Your task to perform on an android device: Open wifi settings Image 0: 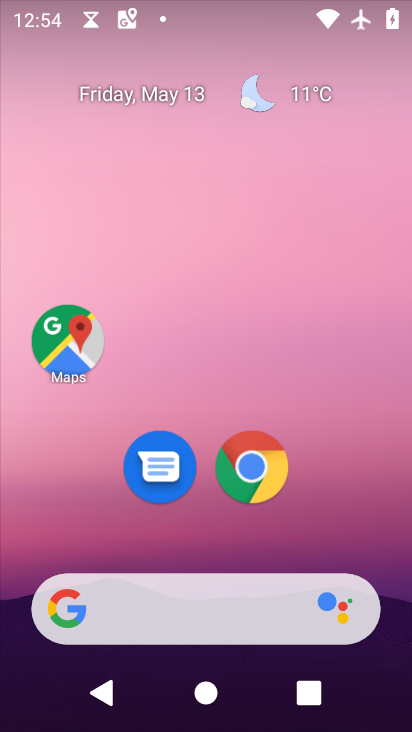
Step 0: drag from (282, 521) to (261, 14)
Your task to perform on an android device: Open wifi settings Image 1: 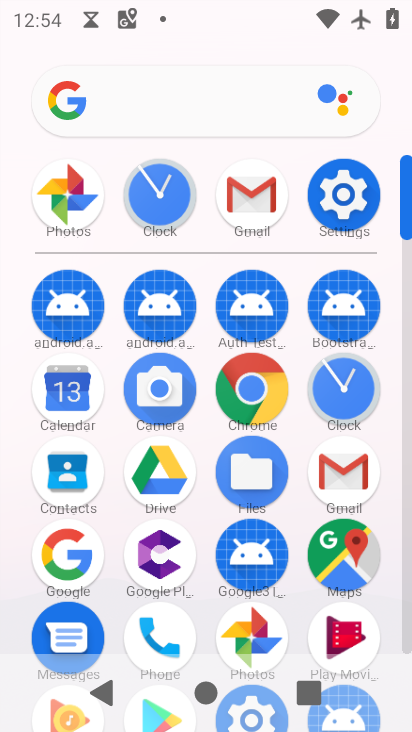
Step 1: click (320, 194)
Your task to perform on an android device: Open wifi settings Image 2: 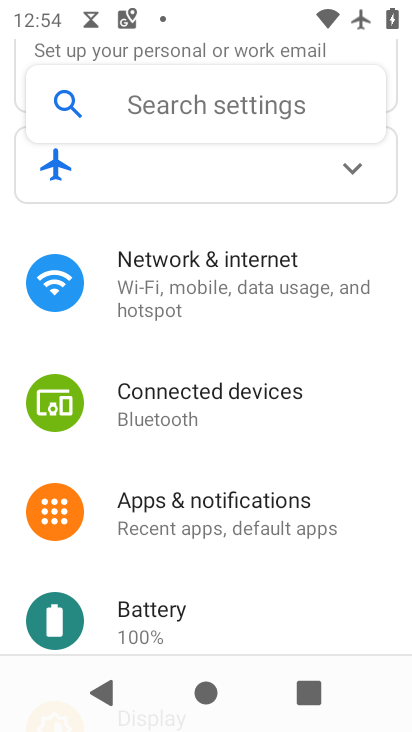
Step 2: click (196, 289)
Your task to perform on an android device: Open wifi settings Image 3: 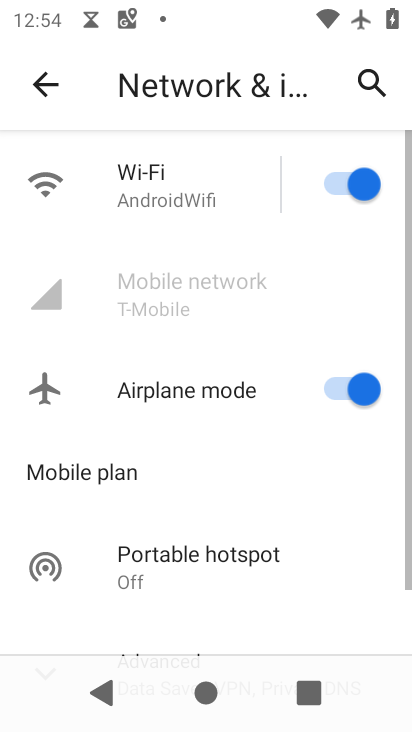
Step 3: click (173, 191)
Your task to perform on an android device: Open wifi settings Image 4: 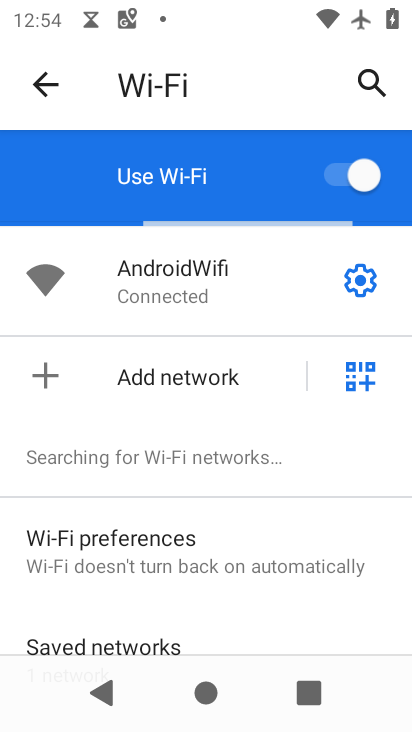
Step 4: task complete